Your task to perform on an android device: What's the weather going to be this weekend? Image 0: 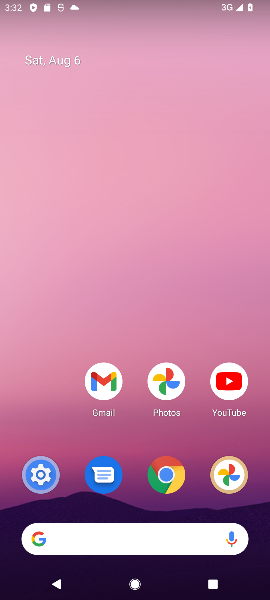
Step 0: click (69, 544)
Your task to perform on an android device: What's the weather going to be this weekend? Image 1: 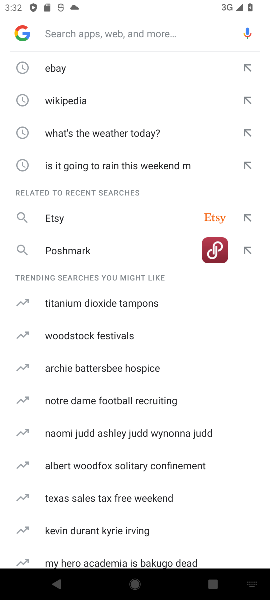
Step 1: type "What's the weather going to be this weekend?"
Your task to perform on an android device: What's the weather going to be this weekend? Image 2: 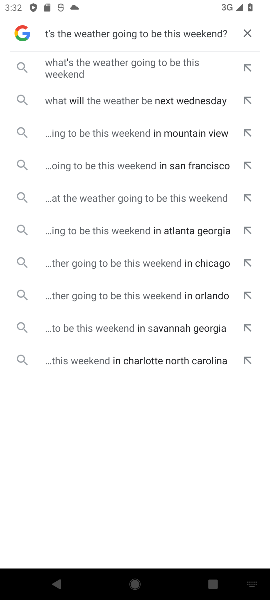
Step 2: click (94, 70)
Your task to perform on an android device: What's the weather going to be this weekend? Image 3: 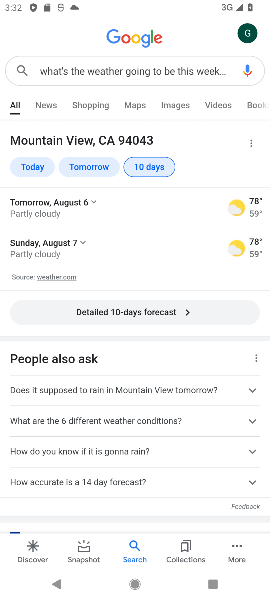
Step 3: task complete